Your task to perform on an android device: Go to battery settings Image 0: 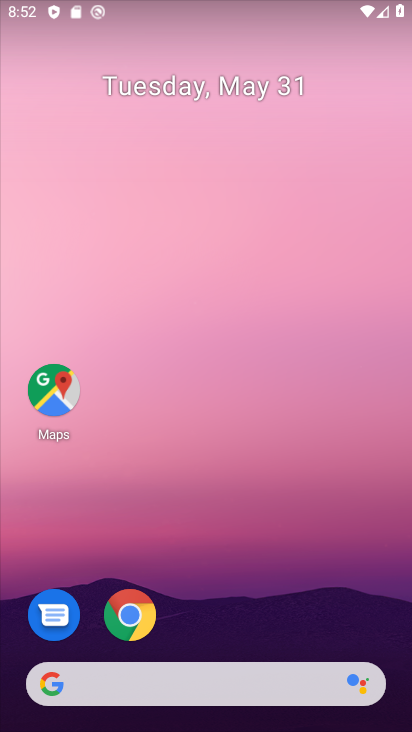
Step 0: press home button
Your task to perform on an android device: Go to battery settings Image 1: 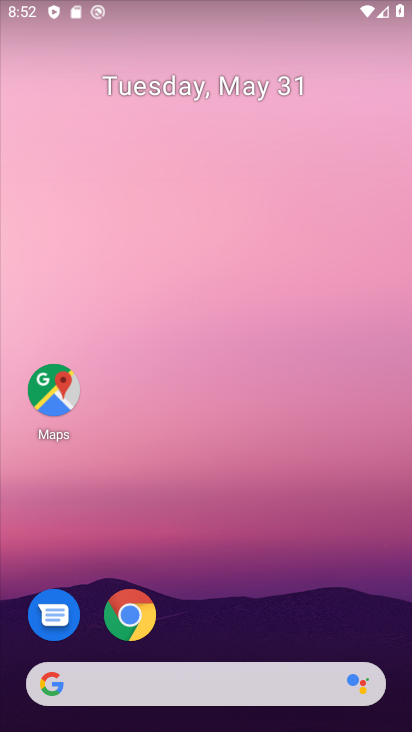
Step 1: click (244, 486)
Your task to perform on an android device: Go to battery settings Image 2: 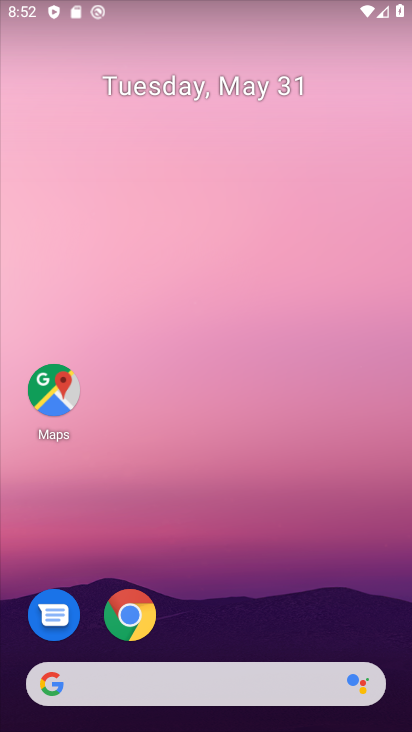
Step 2: drag from (282, 521) to (334, 114)
Your task to perform on an android device: Go to battery settings Image 3: 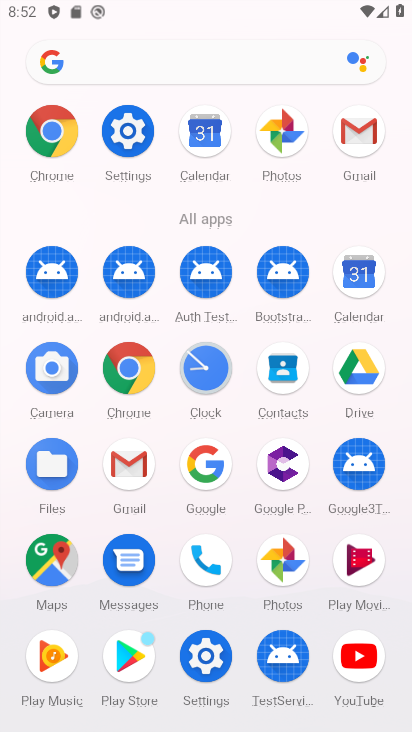
Step 3: click (144, 130)
Your task to perform on an android device: Go to battery settings Image 4: 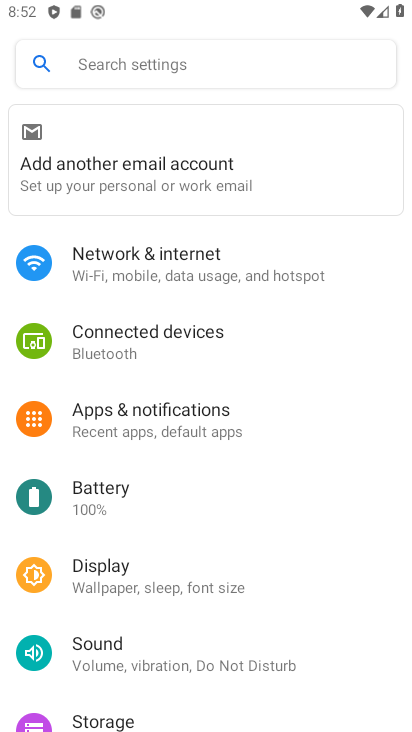
Step 4: click (139, 483)
Your task to perform on an android device: Go to battery settings Image 5: 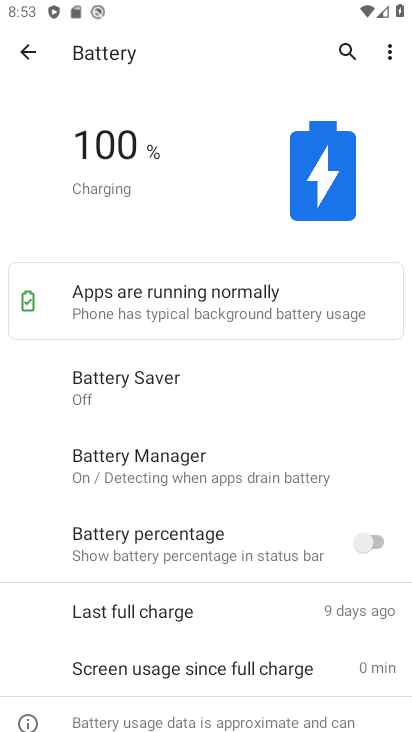
Step 5: task complete